Your task to perform on an android device: delete a single message in the gmail app Image 0: 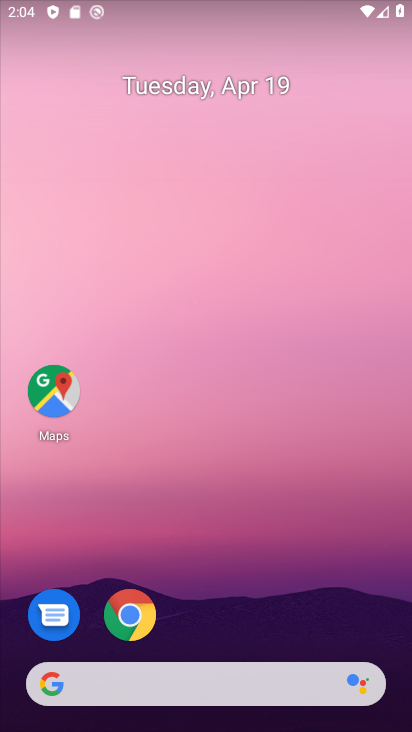
Step 0: drag from (240, 602) to (269, 232)
Your task to perform on an android device: delete a single message in the gmail app Image 1: 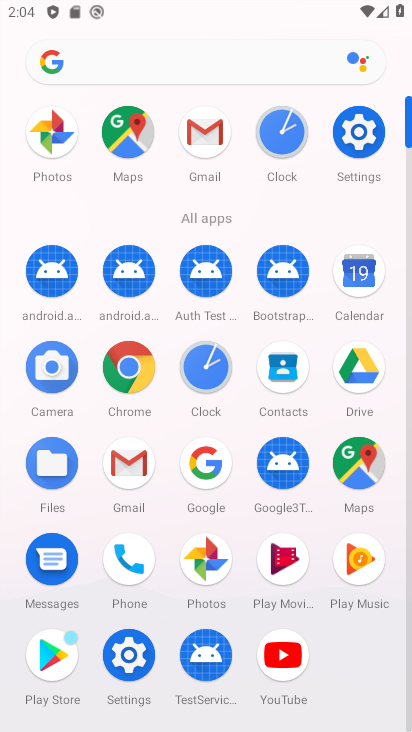
Step 1: click (207, 129)
Your task to perform on an android device: delete a single message in the gmail app Image 2: 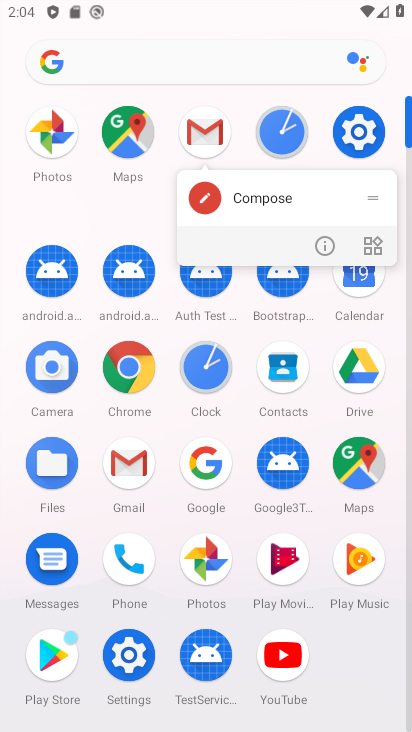
Step 2: click (207, 129)
Your task to perform on an android device: delete a single message in the gmail app Image 3: 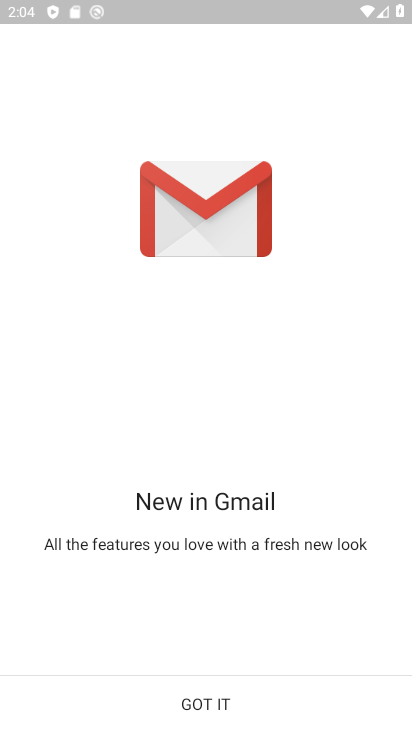
Step 3: click (210, 697)
Your task to perform on an android device: delete a single message in the gmail app Image 4: 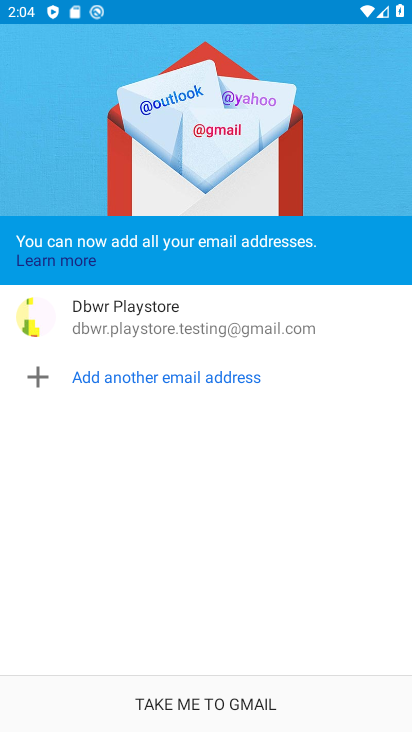
Step 4: click (216, 691)
Your task to perform on an android device: delete a single message in the gmail app Image 5: 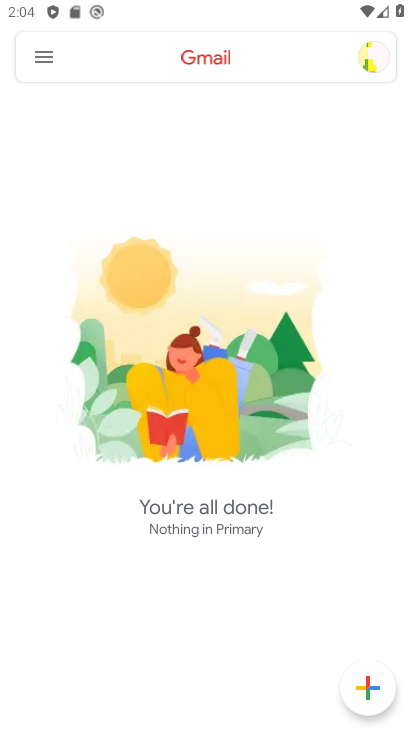
Step 5: click (41, 58)
Your task to perform on an android device: delete a single message in the gmail app Image 6: 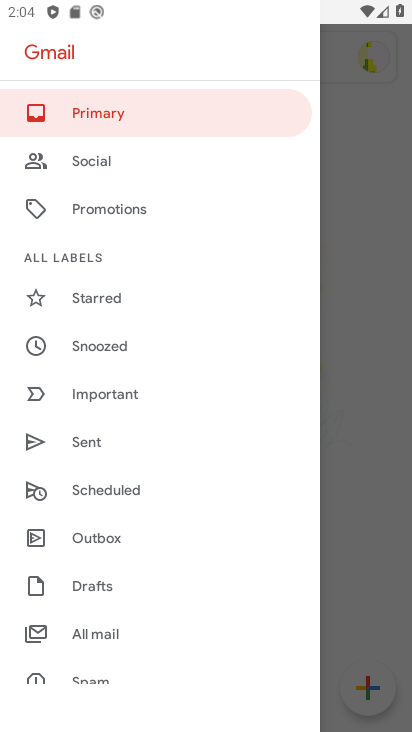
Step 6: click (88, 641)
Your task to perform on an android device: delete a single message in the gmail app Image 7: 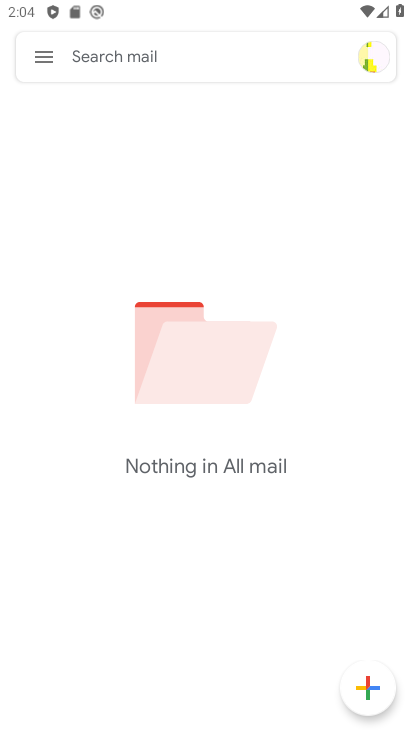
Step 7: click (43, 67)
Your task to perform on an android device: delete a single message in the gmail app Image 8: 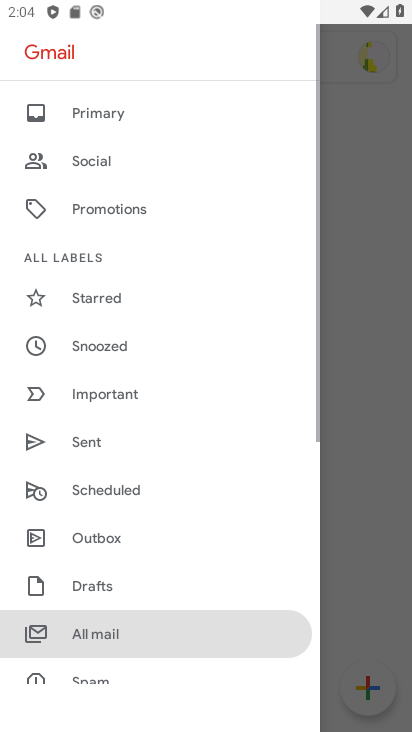
Step 8: click (43, 67)
Your task to perform on an android device: delete a single message in the gmail app Image 9: 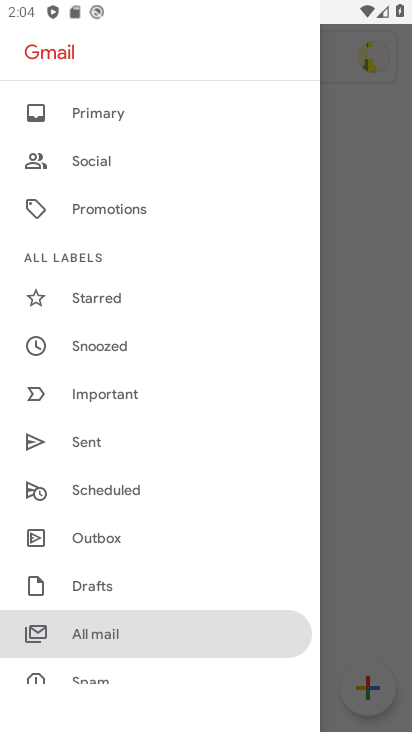
Step 9: drag from (127, 150) to (134, 591)
Your task to perform on an android device: delete a single message in the gmail app Image 10: 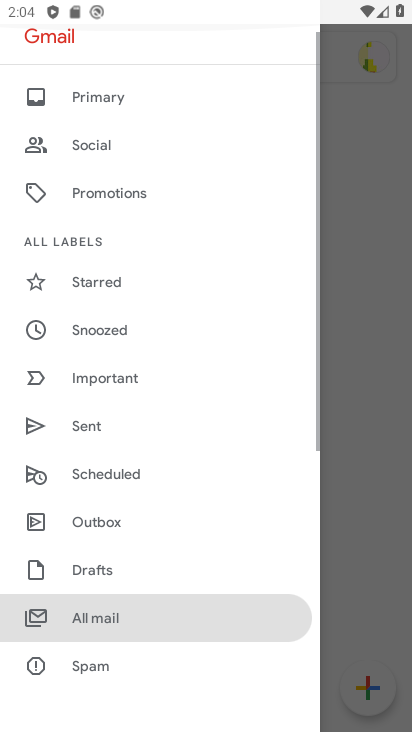
Step 10: click (109, 97)
Your task to perform on an android device: delete a single message in the gmail app Image 11: 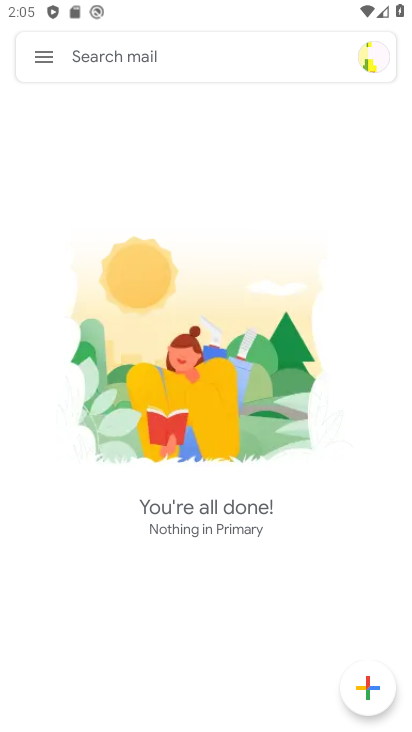
Step 11: task complete